Your task to perform on an android device: Search for sushi restaurants on Maps Image 0: 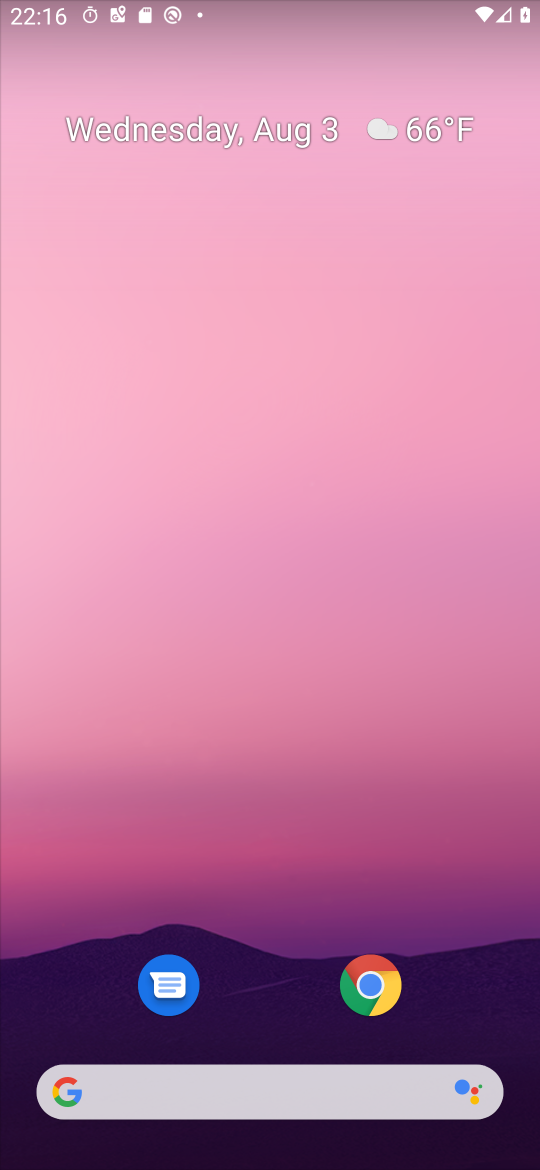
Step 0: drag from (272, 996) to (285, 338)
Your task to perform on an android device: Search for sushi restaurants on Maps Image 1: 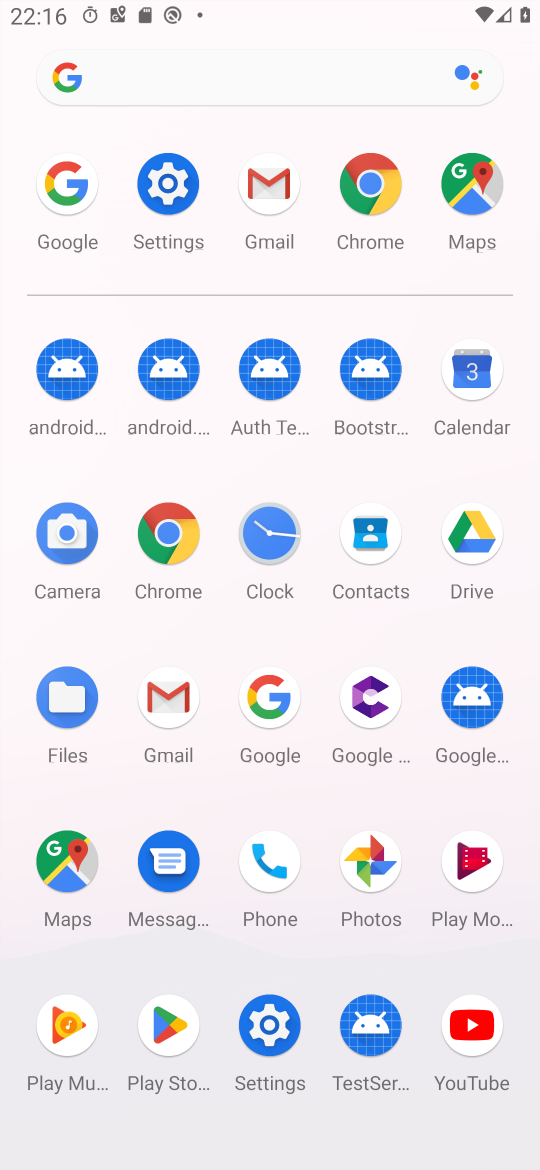
Step 1: click (81, 846)
Your task to perform on an android device: Search for sushi restaurants on Maps Image 2: 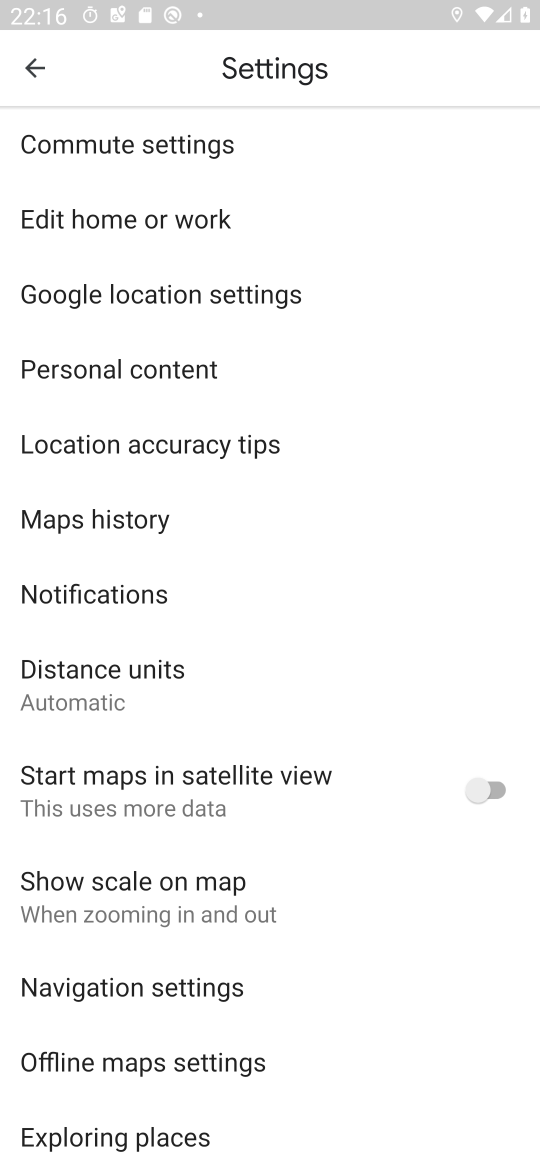
Step 2: click (50, 65)
Your task to perform on an android device: Search for sushi restaurants on Maps Image 3: 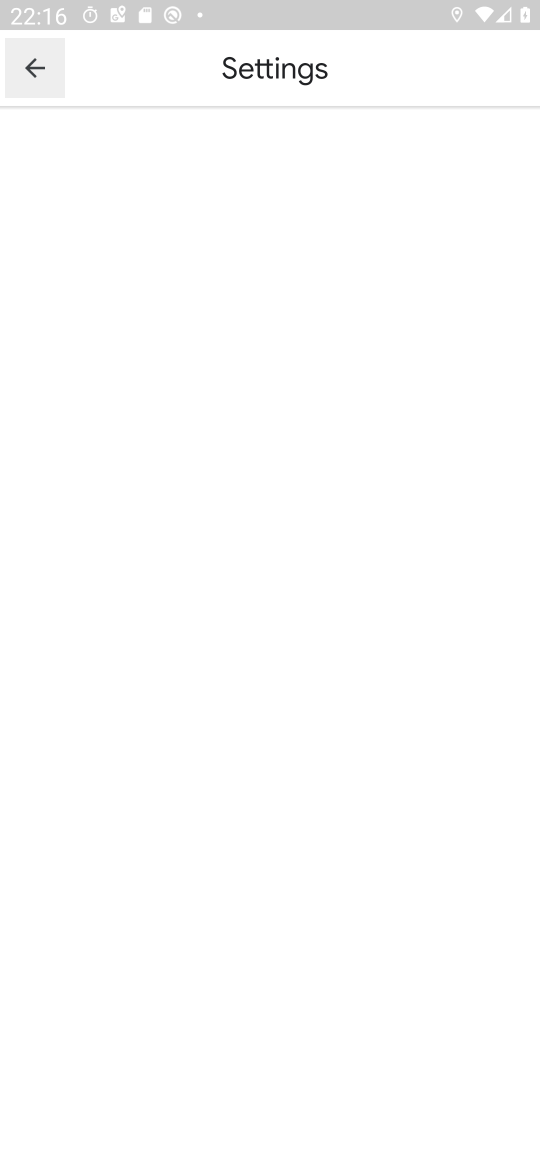
Step 3: press home button
Your task to perform on an android device: Search for sushi restaurants on Maps Image 4: 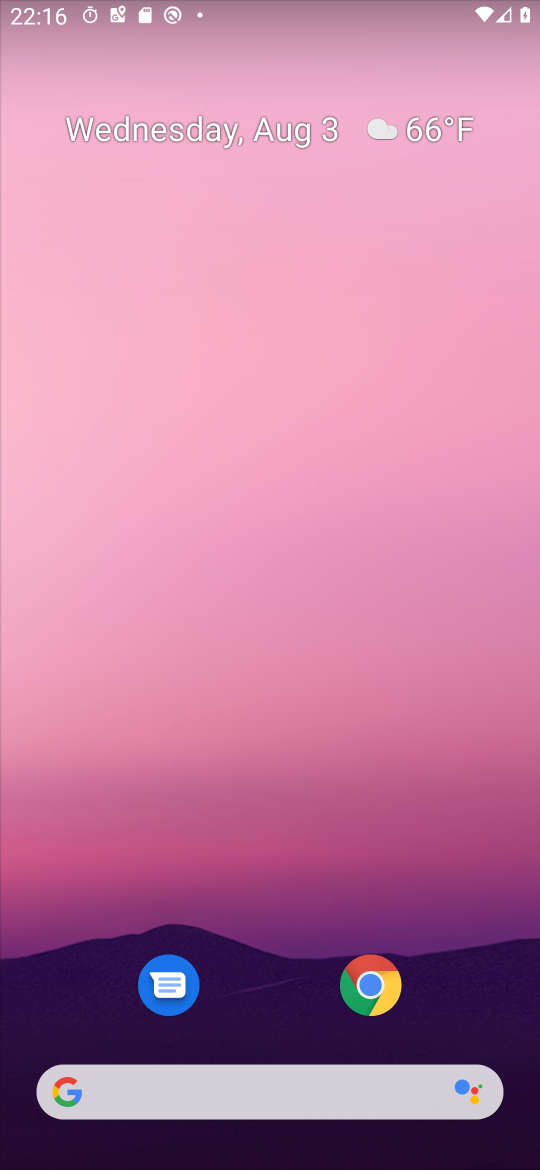
Step 4: drag from (227, 993) to (189, 304)
Your task to perform on an android device: Search for sushi restaurants on Maps Image 5: 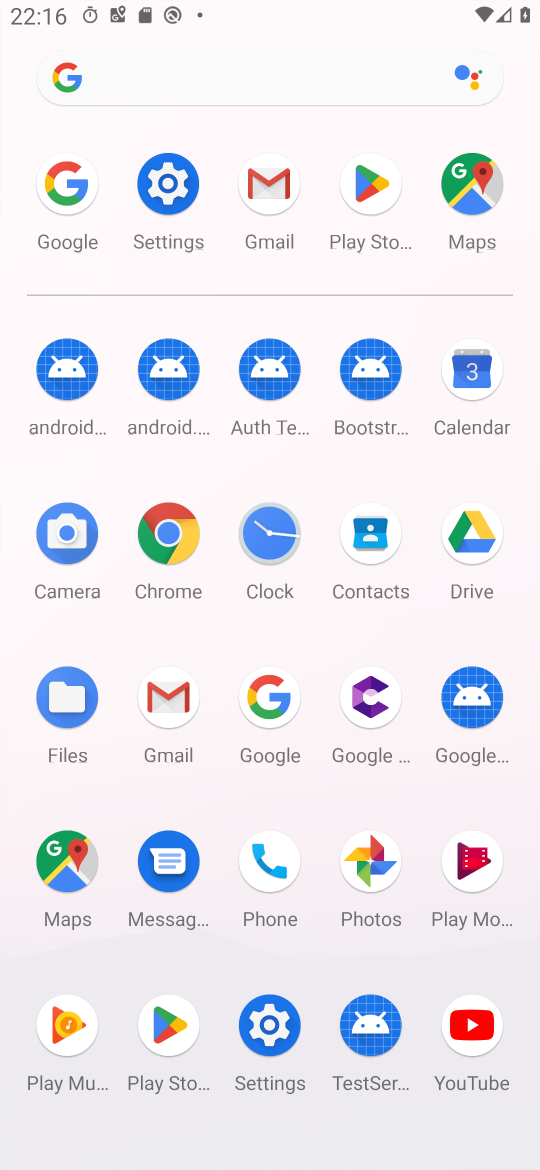
Step 5: click (495, 212)
Your task to perform on an android device: Search for sushi restaurants on Maps Image 6: 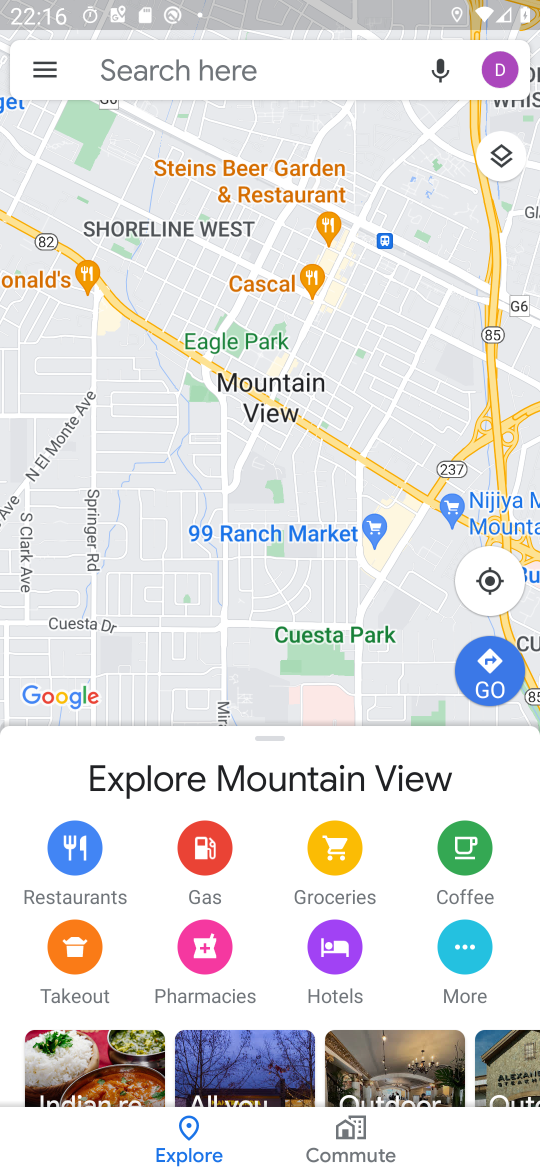
Step 6: click (274, 57)
Your task to perform on an android device: Search for sushi restaurants on Maps Image 7: 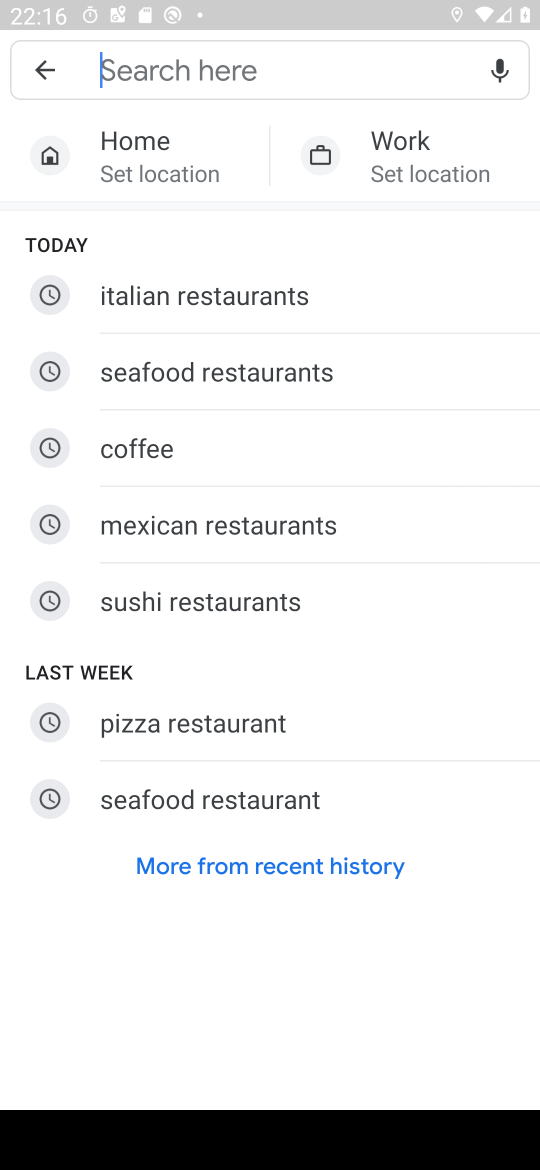
Step 7: type "sushi restaurants"
Your task to perform on an android device: Search for sushi restaurants on Maps Image 8: 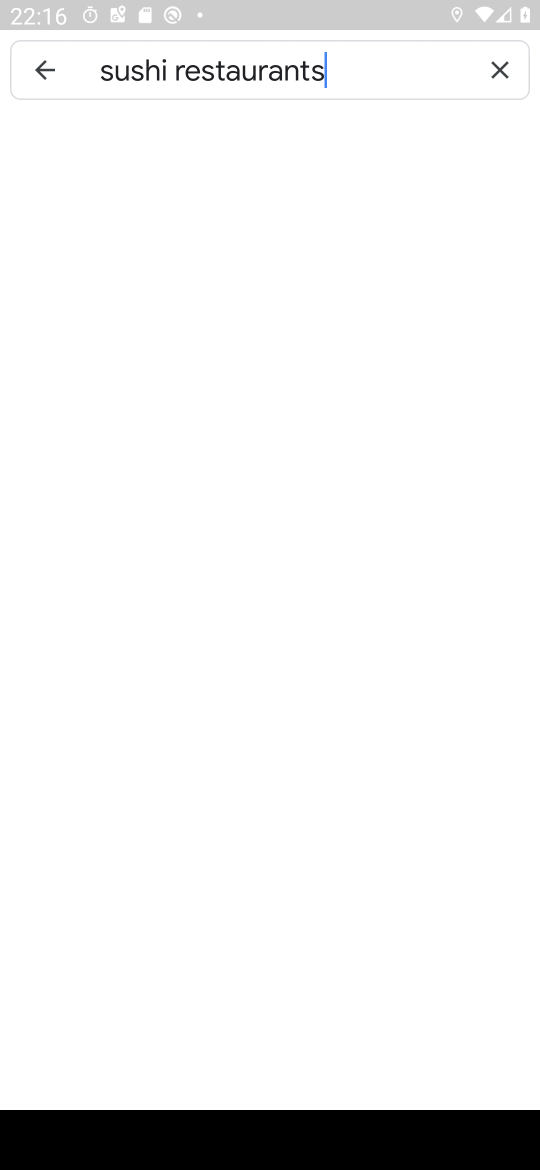
Step 8: type ""
Your task to perform on an android device: Search for sushi restaurants on Maps Image 9: 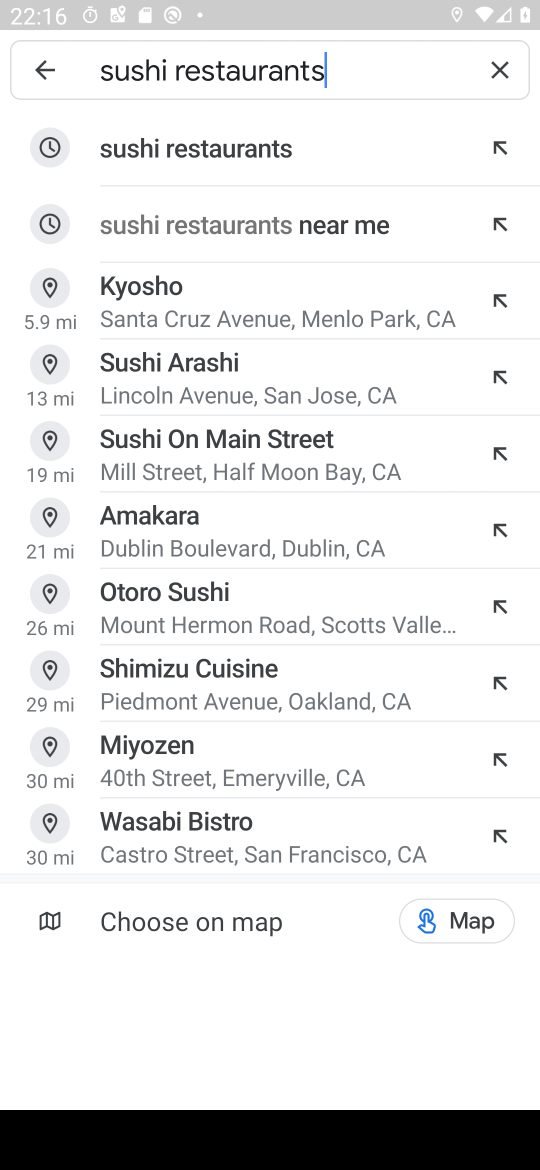
Step 9: click (225, 161)
Your task to perform on an android device: Search for sushi restaurants on Maps Image 10: 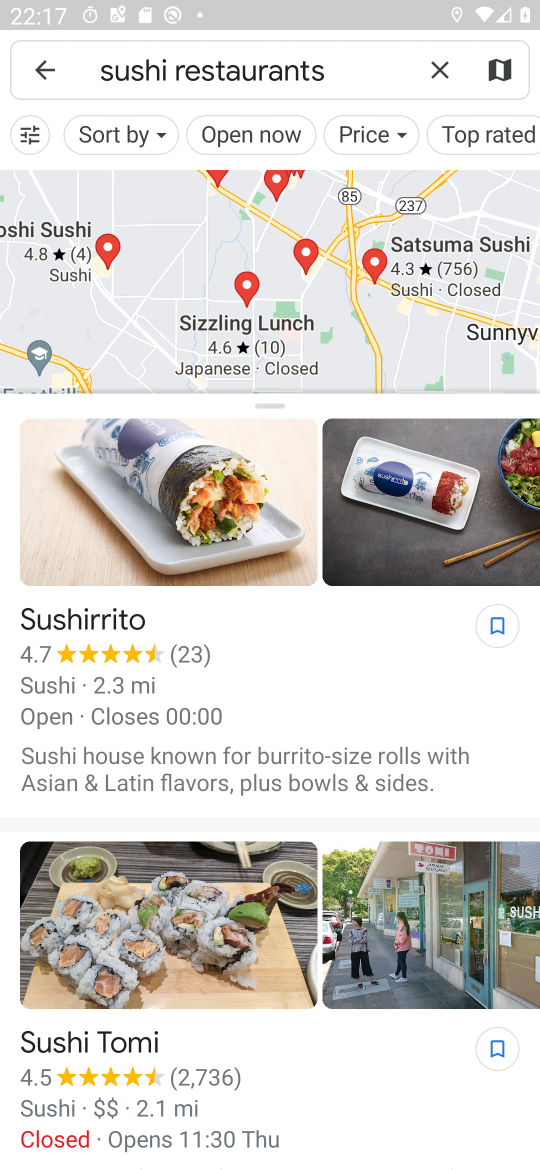
Step 10: task complete